Your task to perform on an android device: Open ESPN.com Image 0: 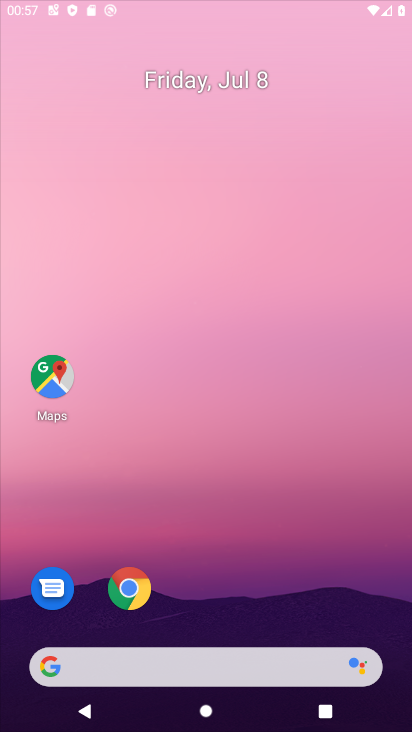
Step 0: drag from (248, 38) to (262, 3)
Your task to perform on an android device: Open ESPN.com Image 1: 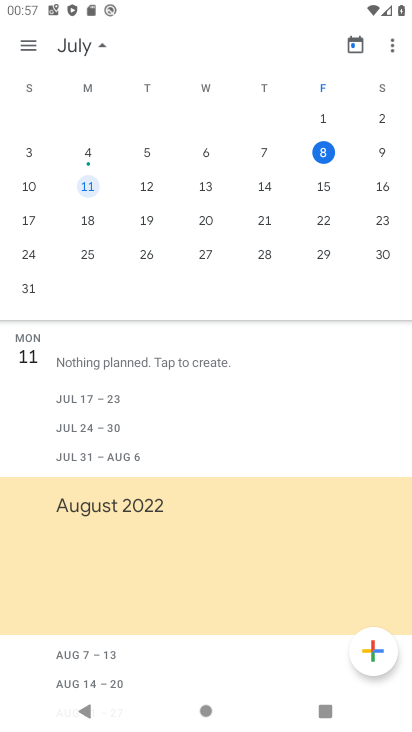
Step 1: press home button
Your task to perform on an android device: Open ESPN.com Image 2: 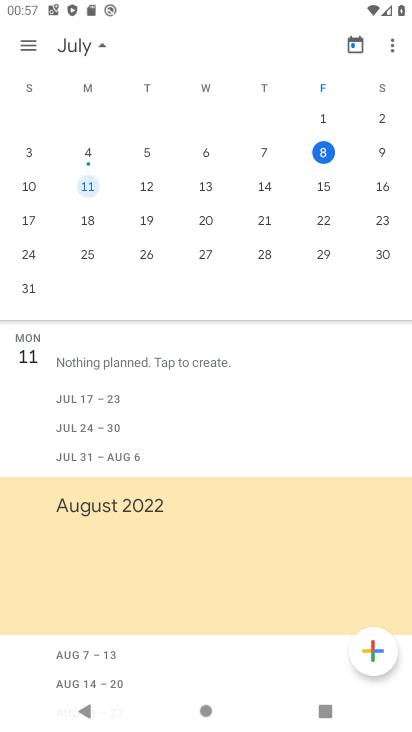
Step 2: drag from (216, 577) to (234, 47)
Your task to perform on an android device: Open ESPN.com Image 3: 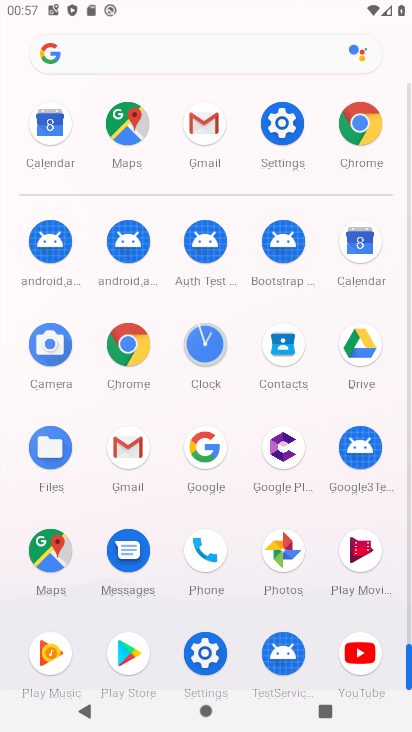
Step 3: click (355, 127)
Your task to perform on an android device: Open ESPN.com Image 4: 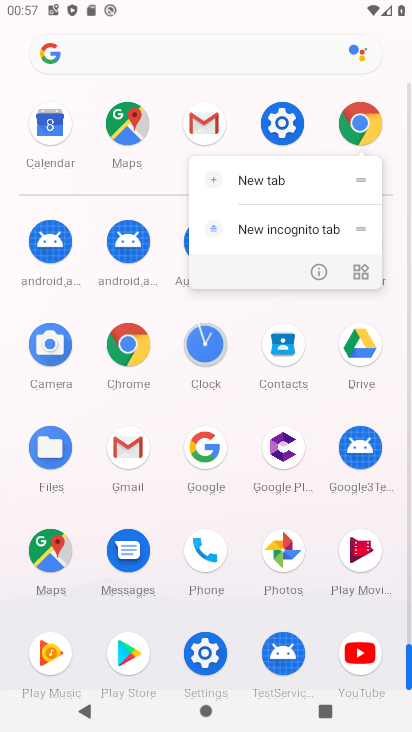
Step 4: click (325, 265)
Your task to perform on an android device: Open ESPN.com Image 5: 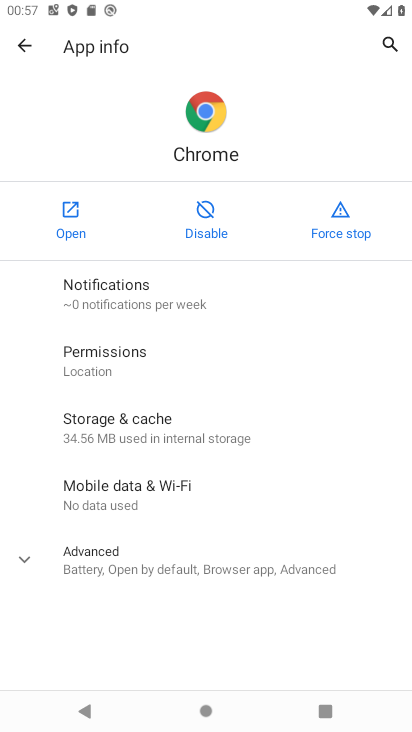
Step 5: click (70, 222)
Your task to perform on an android device: Open ESPN.com Image 6: 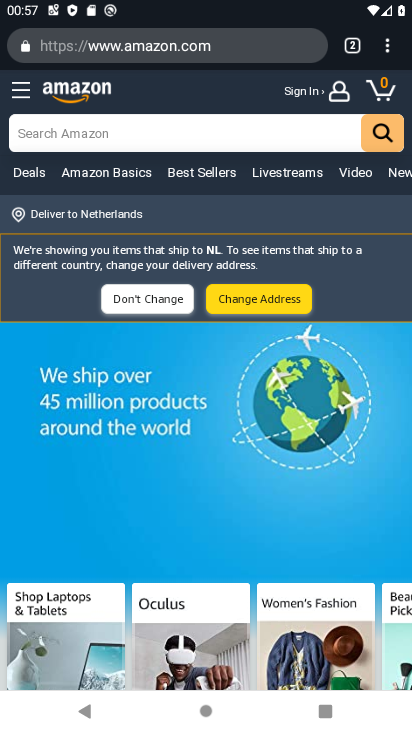
Step 6: click (355, 49)
Your task to perform on an android device: Open ESPN.com Image 7: 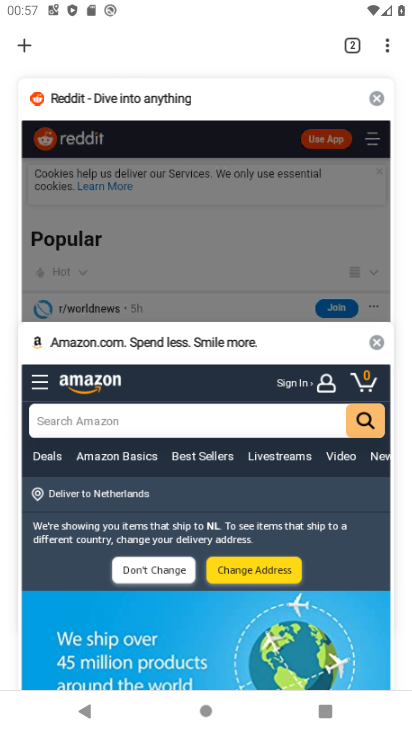
Step 7: click (371, 345)
Your task to perform on an android device: Open ESPN.com Image 8: 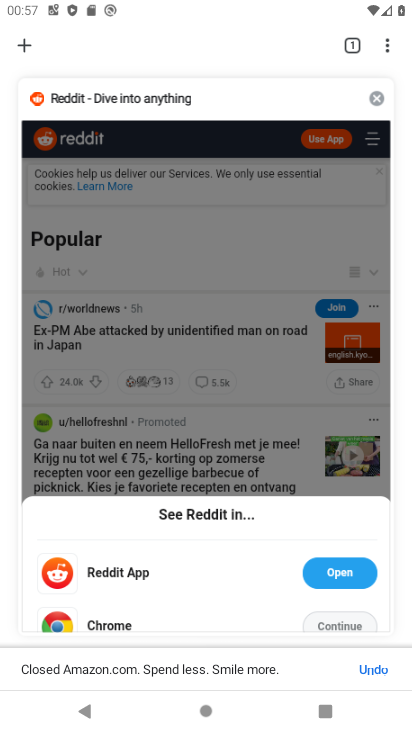
Step 8: click (378, 96)
Your task to perform on an android device: Open ESPN.com Image 9: 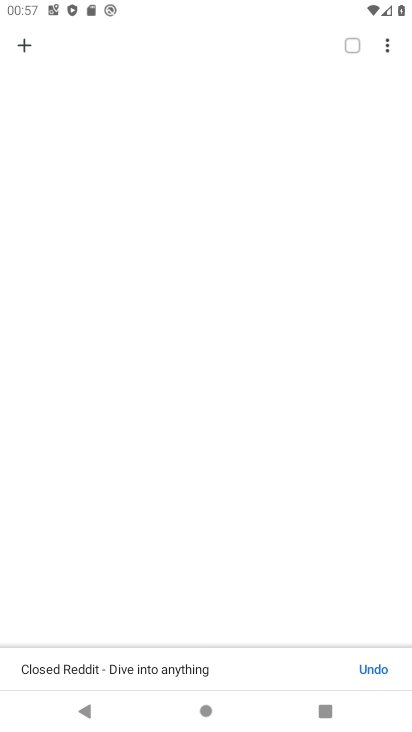
Step 9: click (20, 49)
Your task to perform on an android device: Open ESPN.com Image 10: 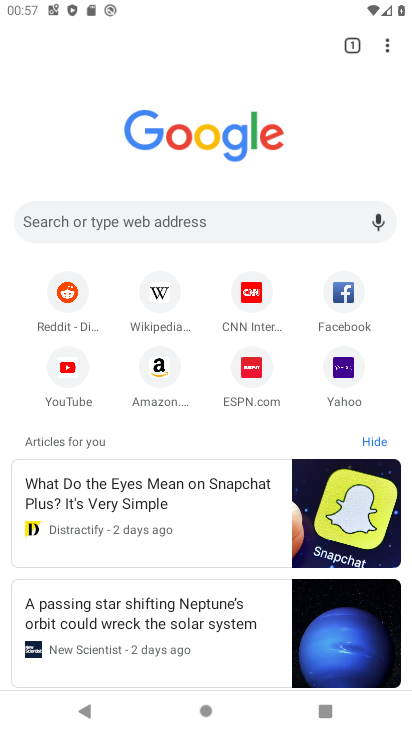
Step 10: click (235, 378)
Your task to perform on an android device: Open ESPN.com Image 11: 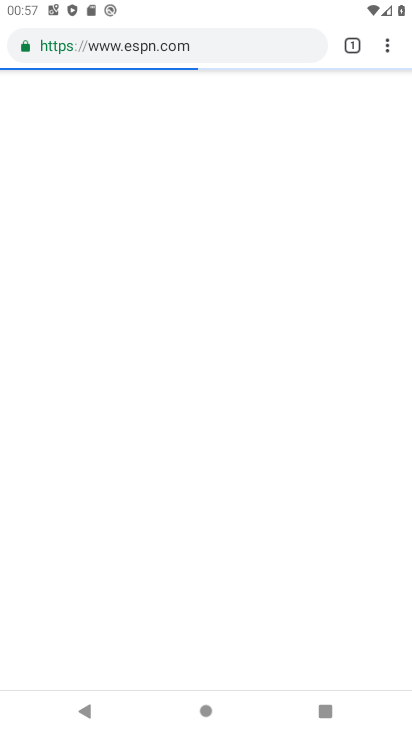
Step 11: task complete